Your task to perform on an android device: star an email in the gmail app Image 0: 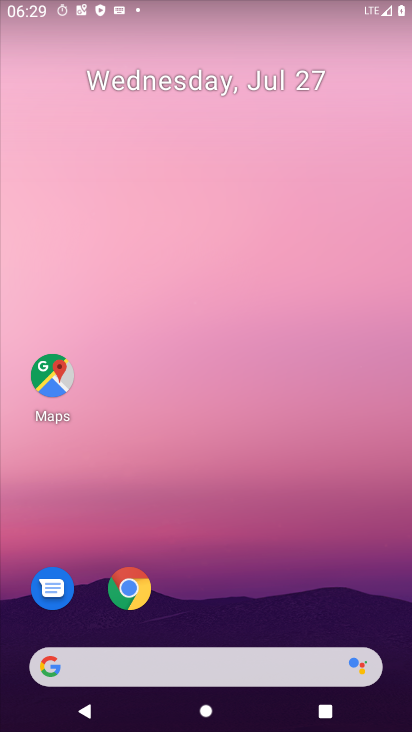
Step 0: drag from (181, 636) to (291, 4)
Your task to perform on an android device: star an email in the gmail app Image 1: 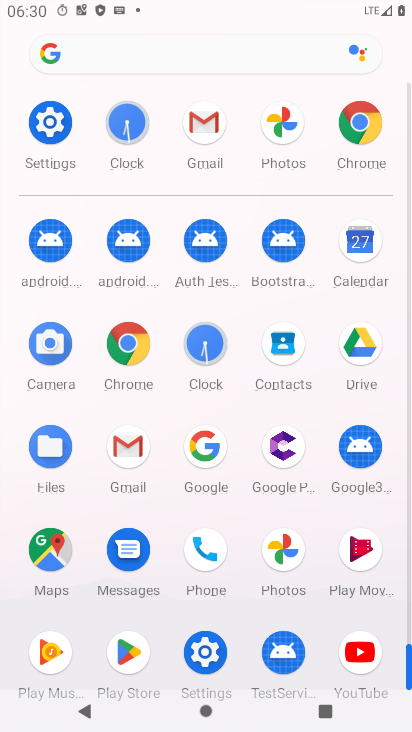
Step 1: click (129, 448)
Your task to perform on an android device: star an email in the gmail app Image 2: 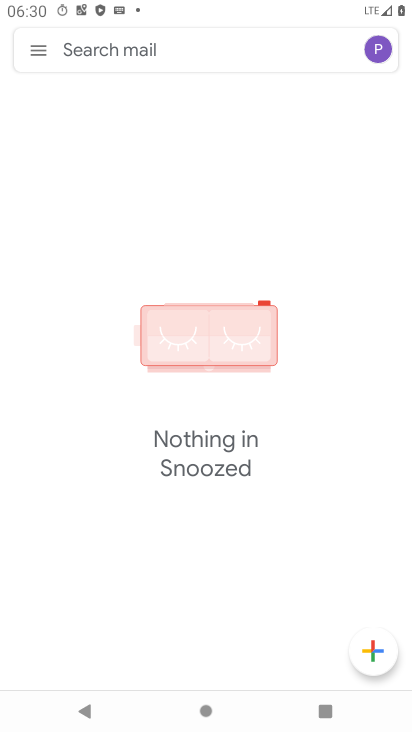
Step 2: click (39, 47)
Your task to perform on an android device: star an email in the gmail app Image 3: 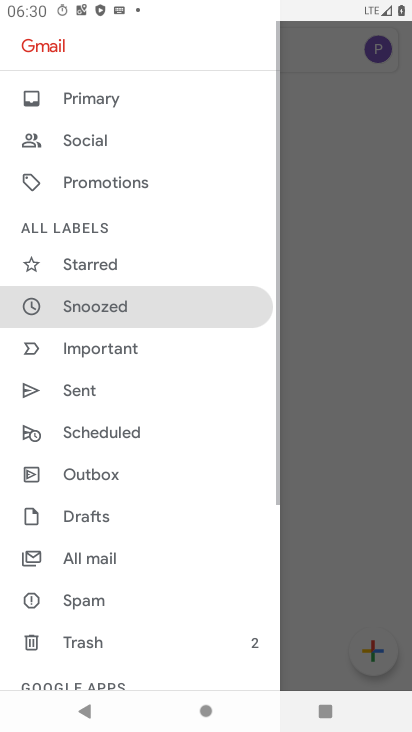
Step 3: click (124, 276)
Your task to perform on an android device: star an email in the gmail app Image 4: 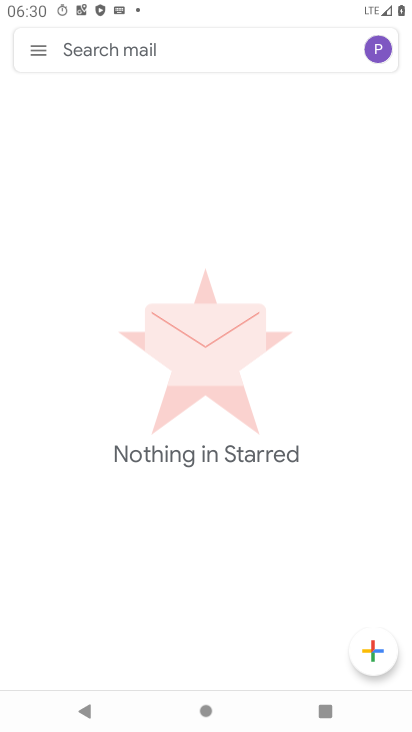
Step 4: task complete